Your task to perform on an android device: Open Chrome and go to settings Image 0: 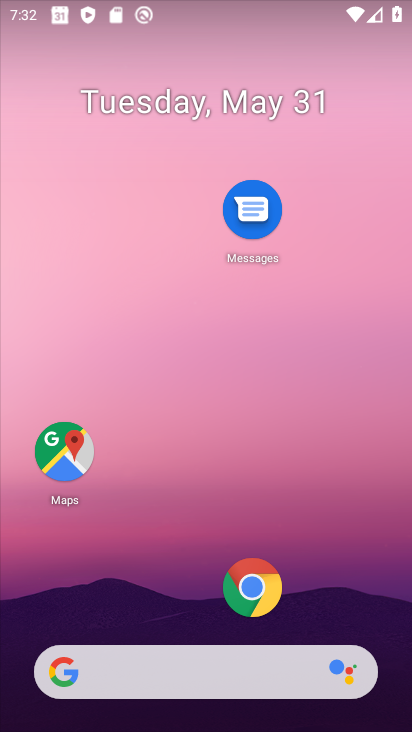
Step 0: click (262, 581)
Your task to perform on an android device: Open Chrome and go to settings Image 1: 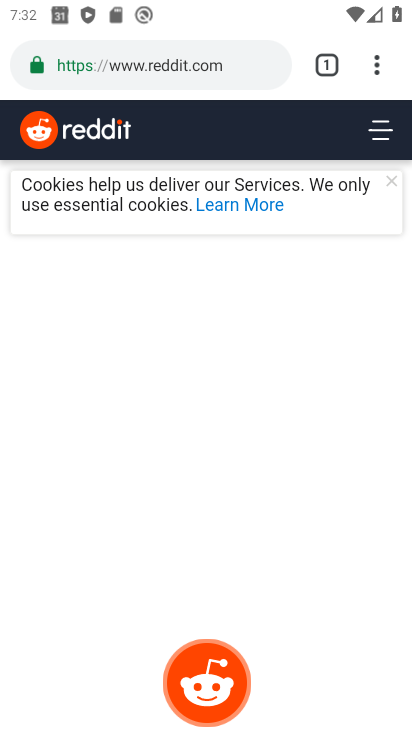
Step 1: click (373, 71)
Your task to perform on an android device: Open Chrome and go to settings Image 2: 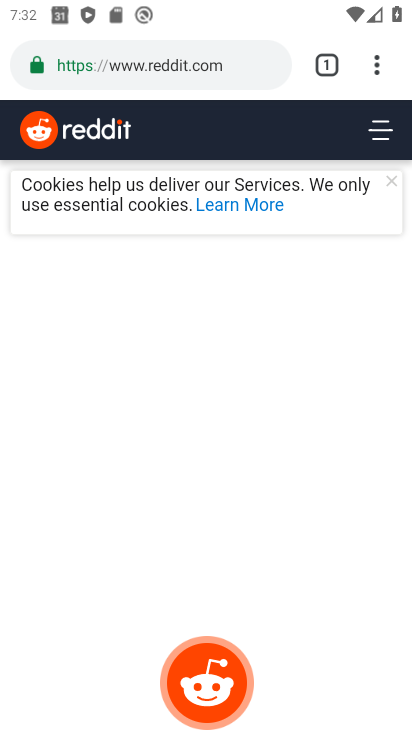
Step 2: click (379, 61)
Your task to perform on an android device: Open Chrome and go to settings Image 3: 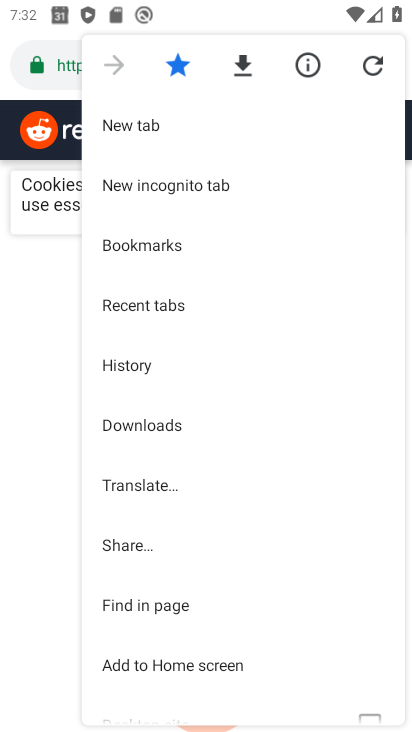
Step 3: drag from (184, 596) to (180, 256)
Your task to perform on an android device: Open Chrome and go to settings Image 4: 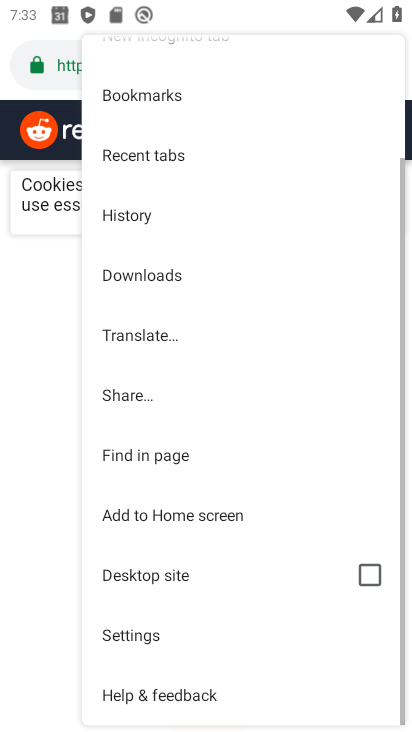
Step 4: click (159, 634)
Your task to perform on an android device: Open Chrome and go to settings Image 5: 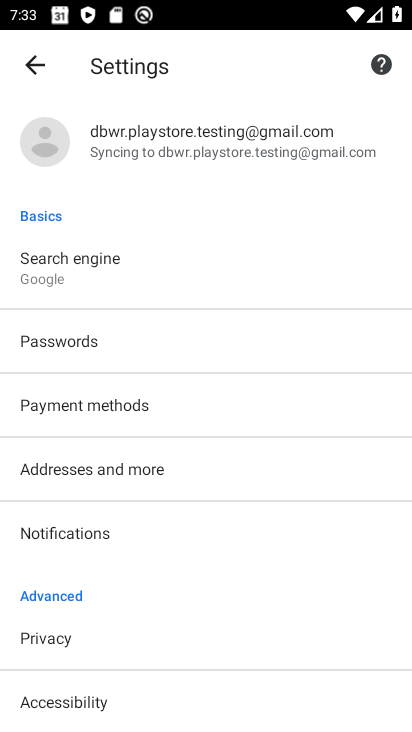
Step 5: task complete